Your task to perform on an android device: When is my next meeting? Image 0: 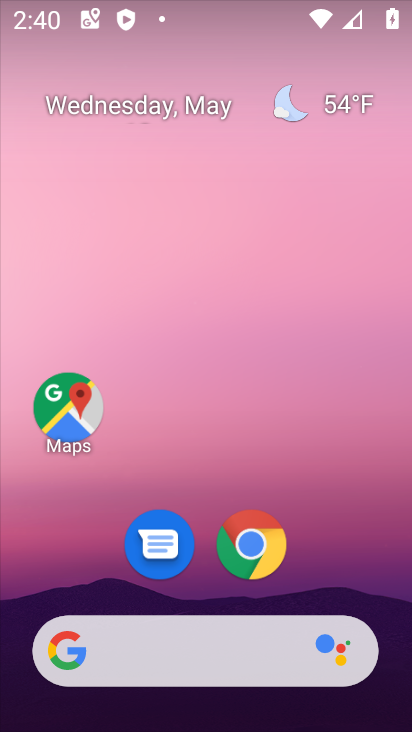
Step 0: drag from (381, 577) to (107, 24)
Your task to perform on an android device: When is my next meeting? Image 1: 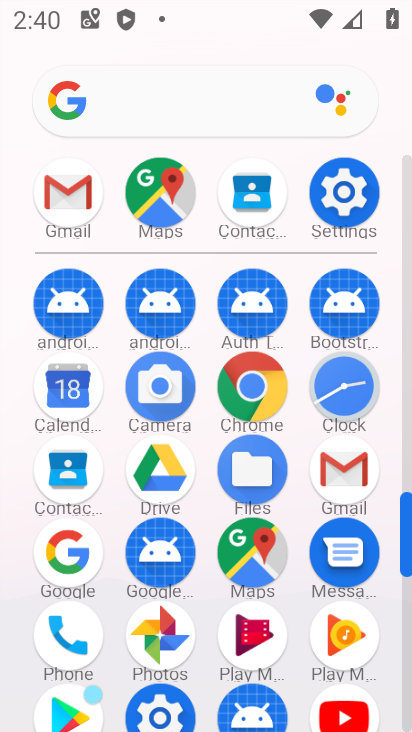
Step 1: click (240, 196)
Your task to perform on an android device: When is my next meeting? Image 2: 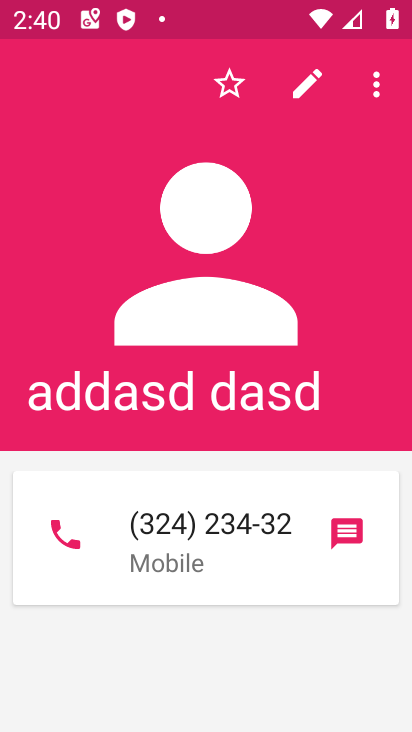
Step 2: press home button
Your task to perform on an android device: When is my next meeting? Image 3: 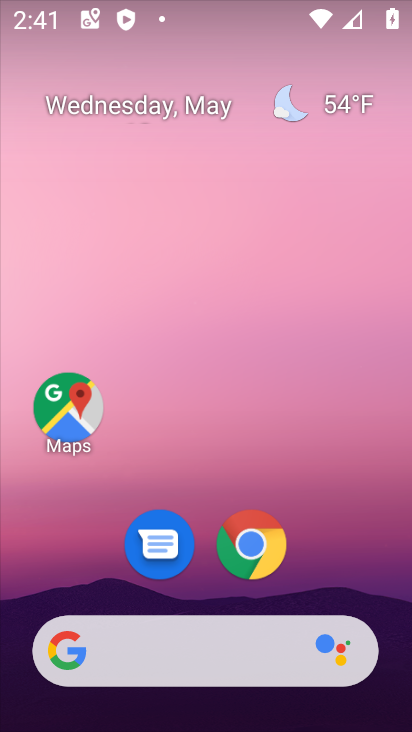
Step 3: drag from (328, 570) to (22, 125)
Your task to perform on an android device: When is my next meeting? Image 4: 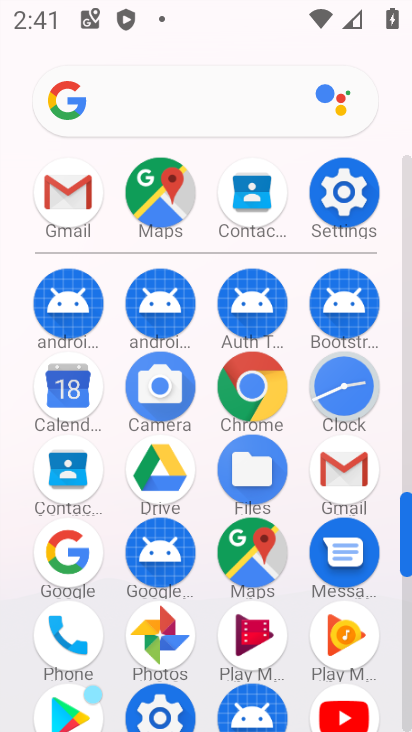
Step 4: click (71, 413)
Your task to perform on an android device: When is my next meeting? Image 5: 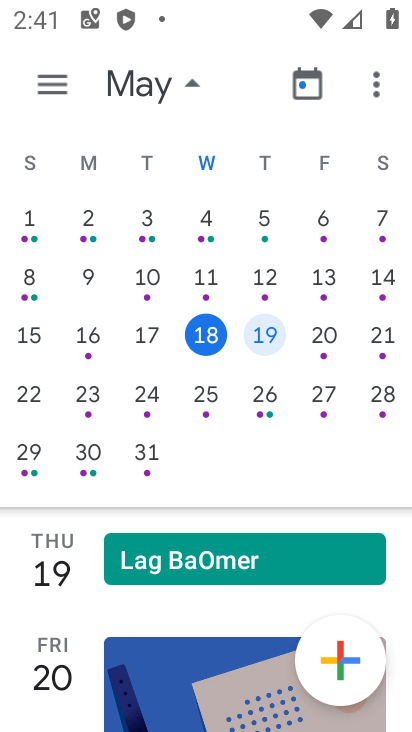
Step 5: task complete